Your task to perform on an android device: change the clock display to digital Image 0: 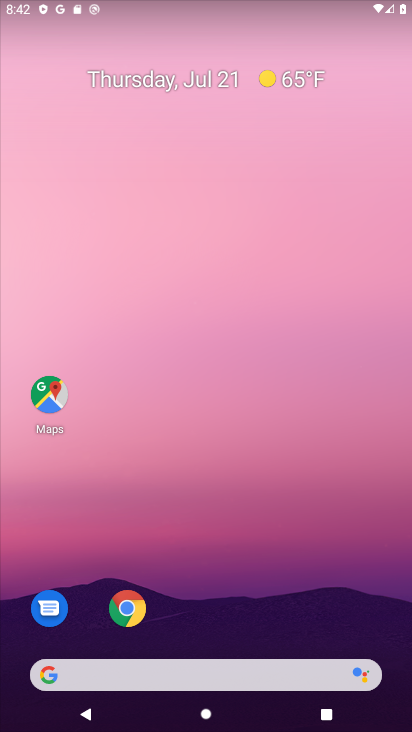
Step 0: drag from (241, 606) to (237, 238)
Your task to perform on an android device: change the clock display to digital Image 1: 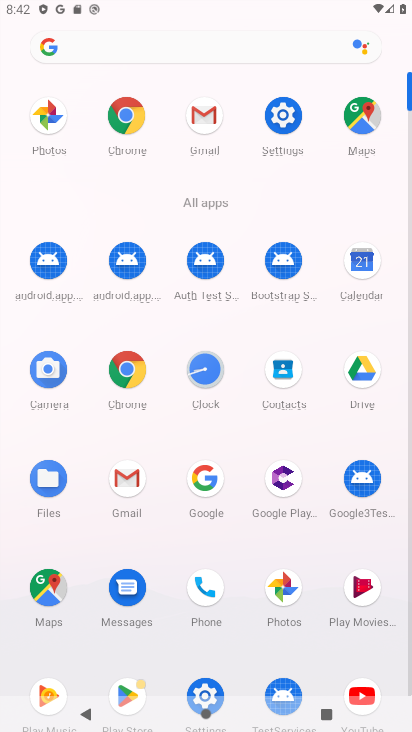
Step 1: click (208, 374)
Your task to perform on an android device: change the clock display to digital Image 2: 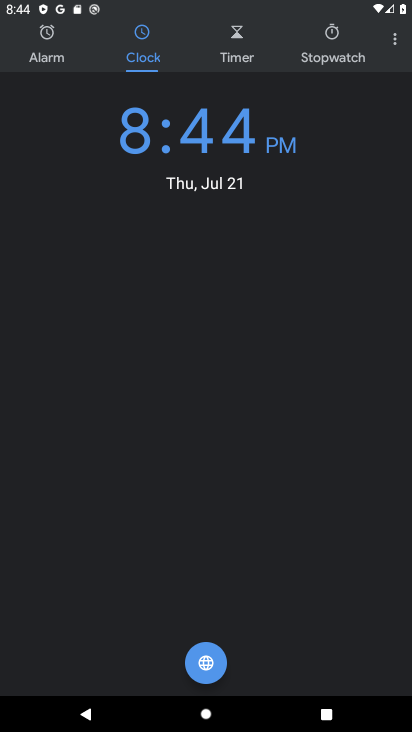
Step 2: task complete